Your task to perform on an android device: clear all cookies in the chrome app Image 0: 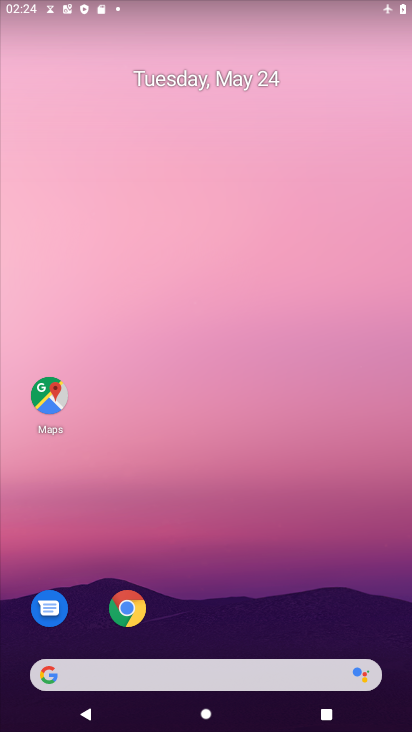
Step 0: click (127, 596)
Your task to perform on an android device: clear all cookies in the chrome app Image 1: 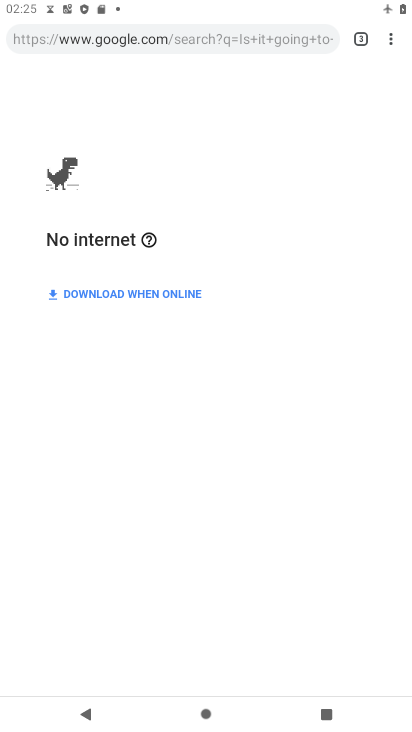
Step 1: click (388, 41)
Your task to perform on an android device: clear all cookies in the chrome app Image 2: 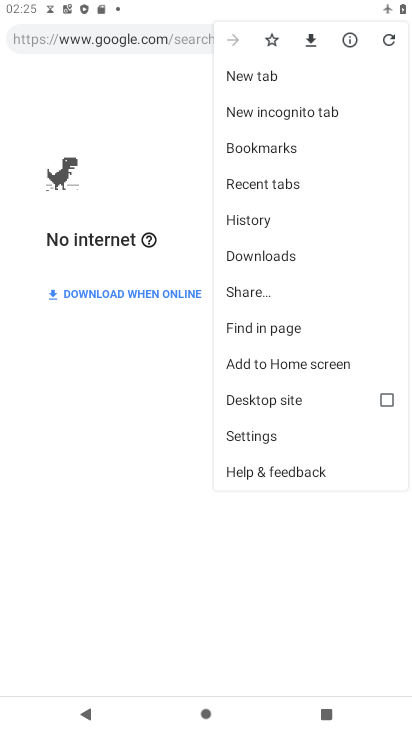
Step 2: click (256, 223)
Your task to perform on an android device: clear all cookies in the chrome app Image 3: 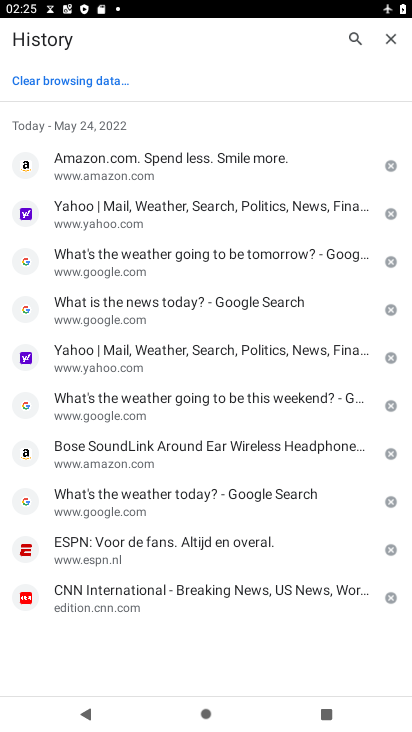
Step 3: click (57, 87)
Your task to perform on an android device: clear all cookies in the chrome app Image 4: 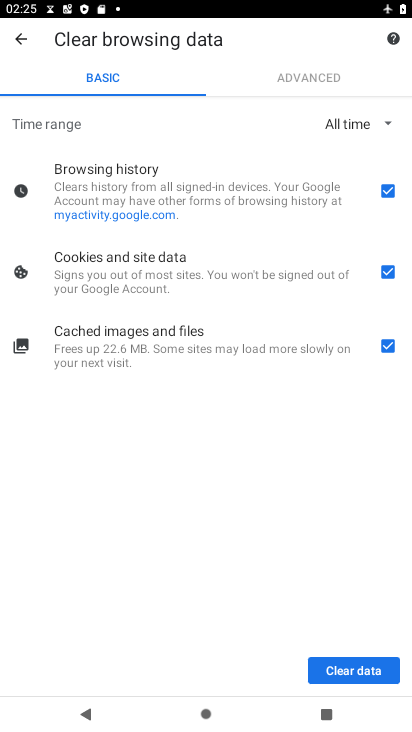
Step 4: click (386, 348)
Your task to perform on an android device: clear all cookies in the chrome app Image 5: 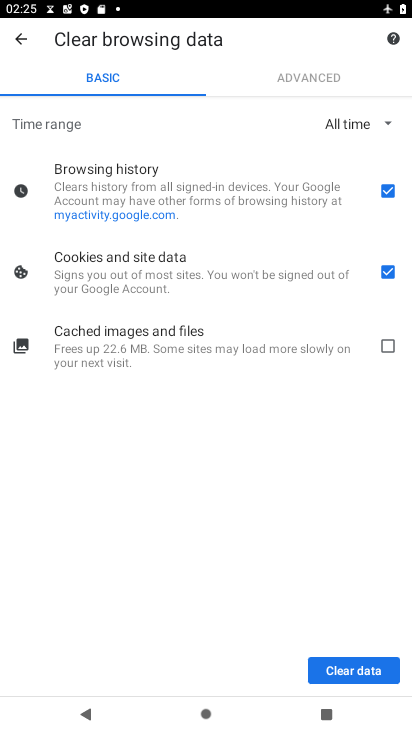
Step 5: click (390, 186)
Your task to perform on an android device: clear all cookies in the chrome app Image 6: 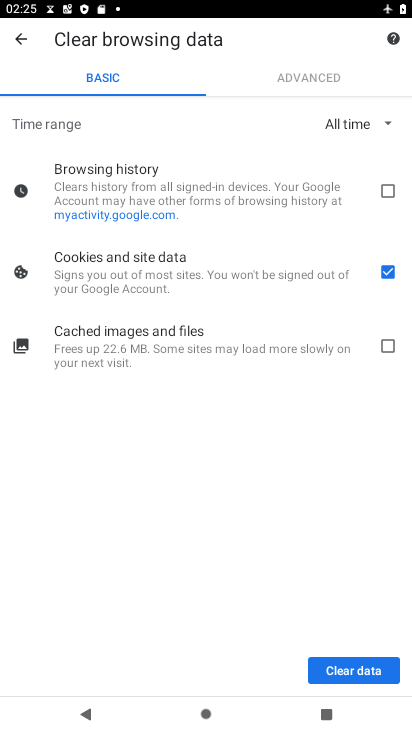
Step 6: click (360, 668)
Your task to perform on an android device: clear all cookies in the chrome app Image 7: 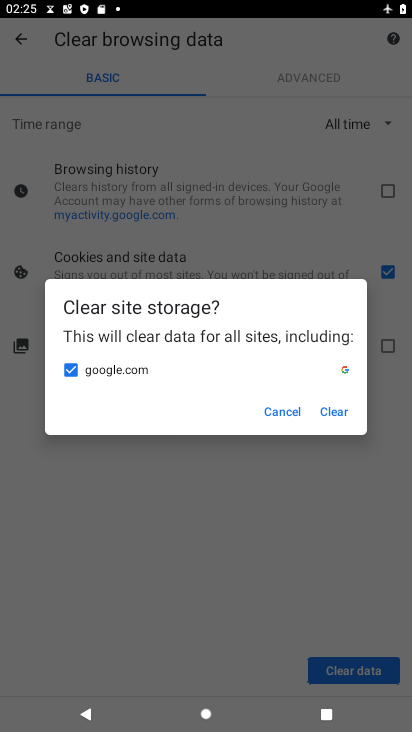
Step 7: click (346, 411)
Your task to perform on an android device: clear all cookies in the chrome app Image 8: 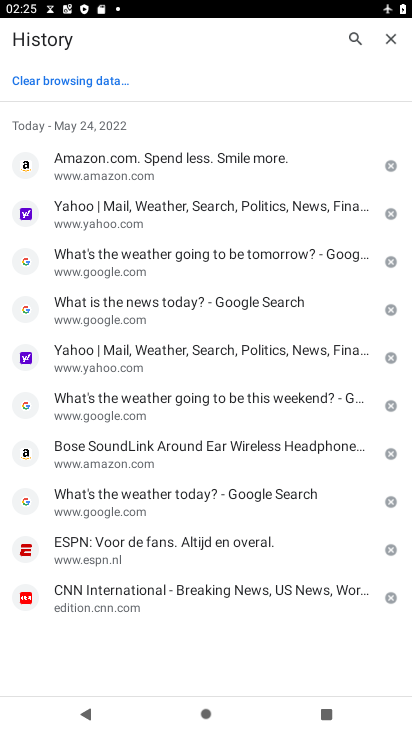
Step 8: task complete